Your task to perform on an android device: change keyboard looks Image 0: 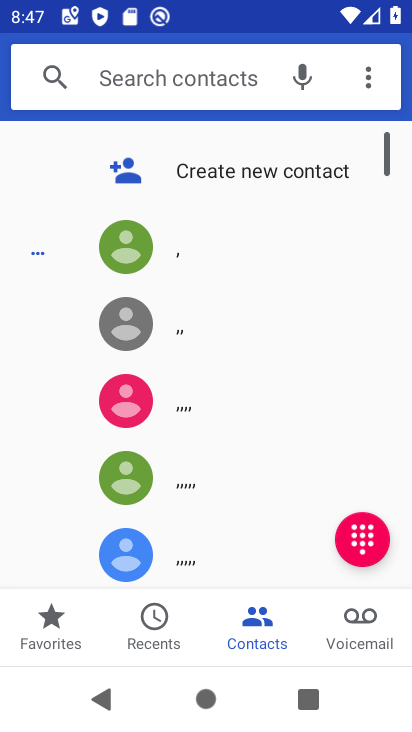
Step 0: press home button
Your task to perform on an android device: change keyboard looks Image 1: 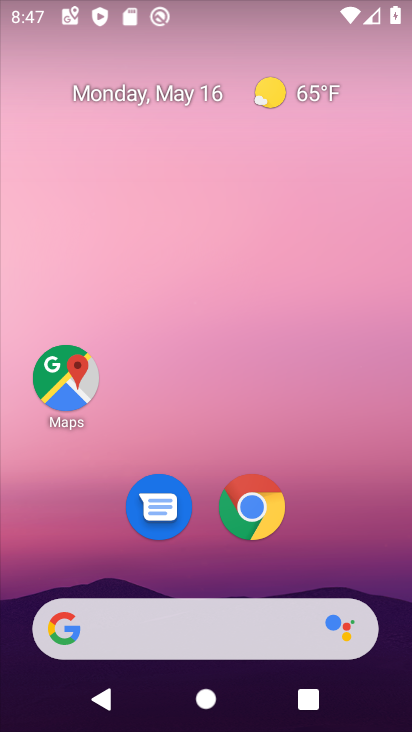
Step 1: drag from (219, 550) to (411, 56)
Your task to perform on an android device: change keyboard looks Image 2: 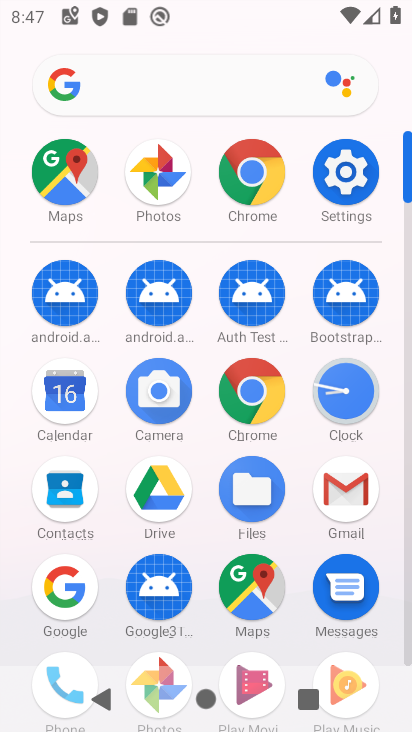
Step 2: click (345, 194)
Your task to perform on an android device: change keyboard looks Image 3: 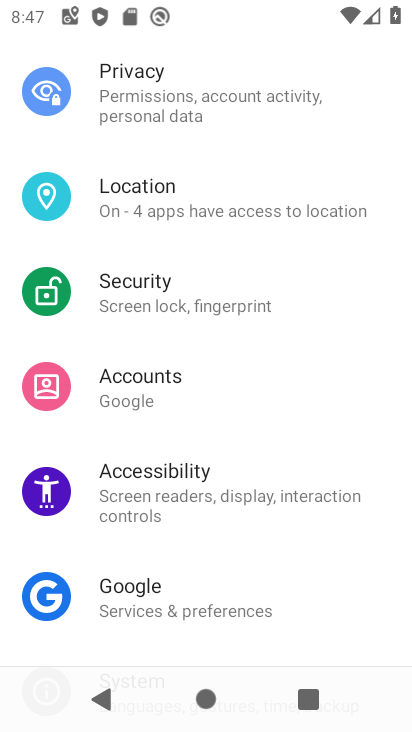
Step 3: drag from (145, 532) to (128, 240)
Your task to perform on an android device: change keyboard looks Image 4: 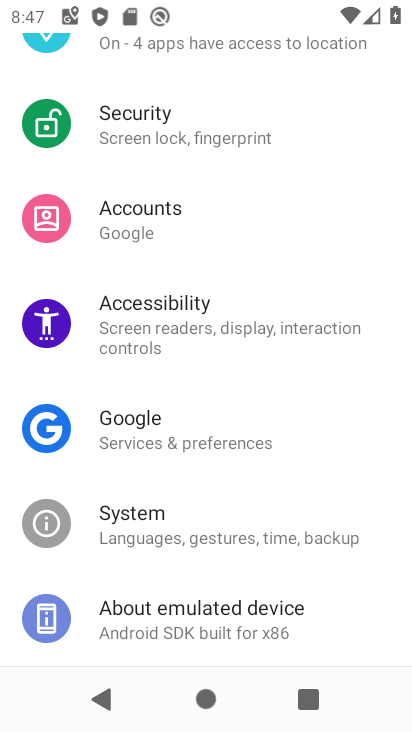
Step 4: click (120, 500)
Your task to perform on an android device: change keyboard looks Image 5: 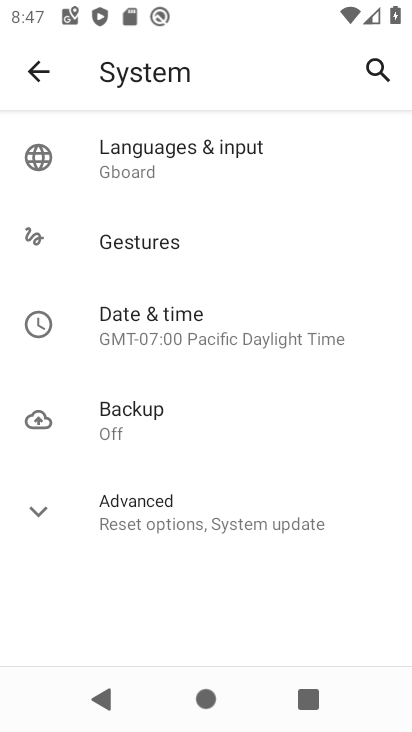
Step 5: click (135, 482)
Your task to perform on an android device: change keyboard looks Image 6: 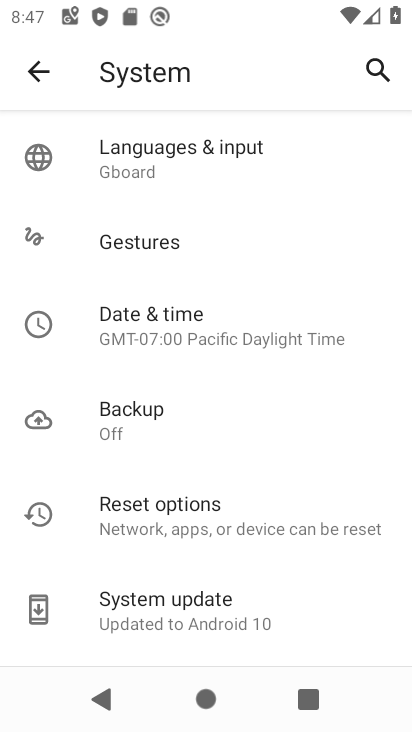
Step 6: click (205, 155)
Your task to perform on an android device: change keyboard looks Image 7: 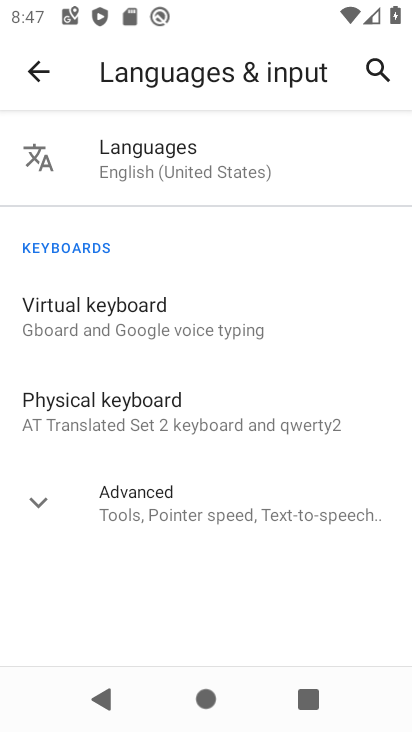
Step 7: click (160, 329)
Your task to perform on an android device: change keyboard looks Image 8: 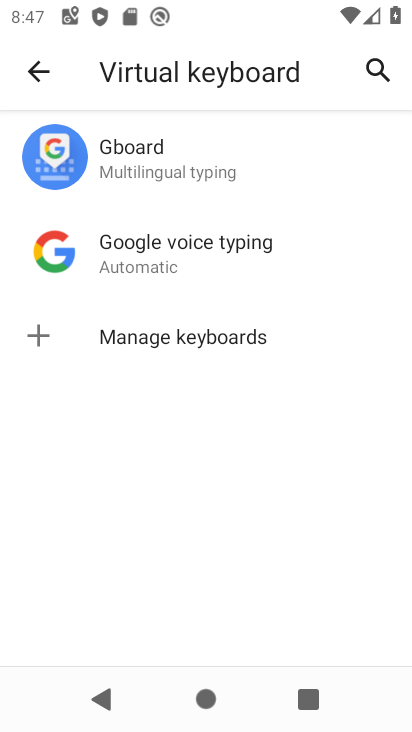
Step 8: click (126, 162)
Your task to perform on an android device: change keyboard looks Image 9: 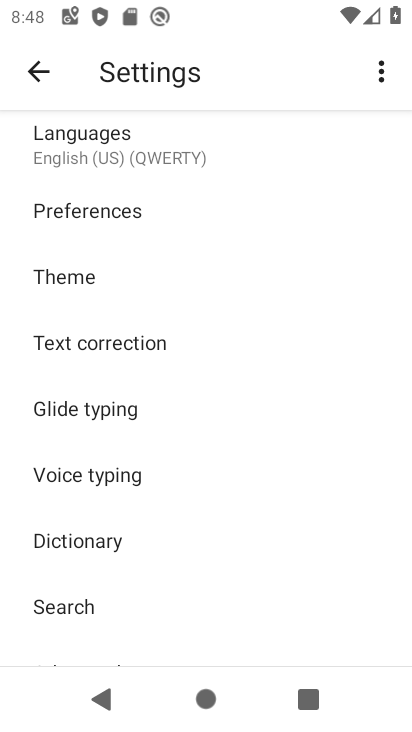
Step 9: click (91, 289)
Your task to perform on an android device: change keyboard looks Image 10: 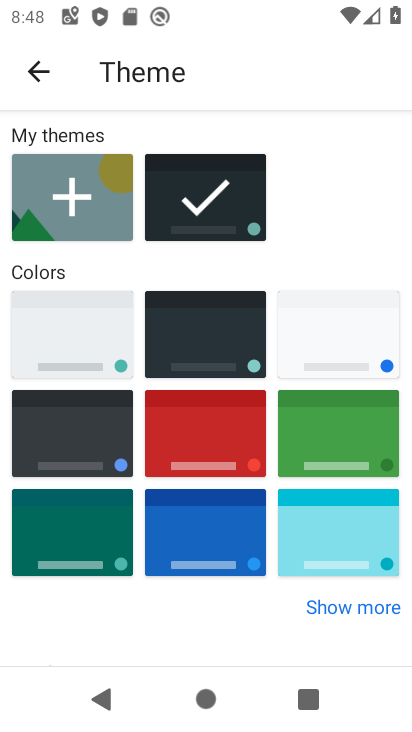
Step 10: click (80, 414)
Your task to perform on an android device: change keyboard looks Image 11: 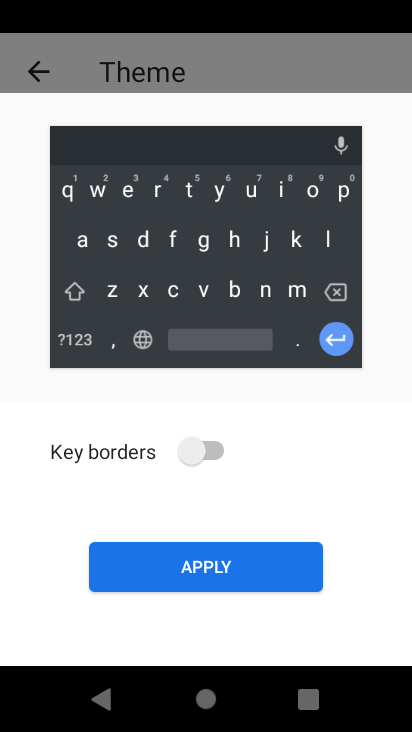
Step 11: click (232, 559)
Your task to perform on an android device: change keyboard looks Image 12: 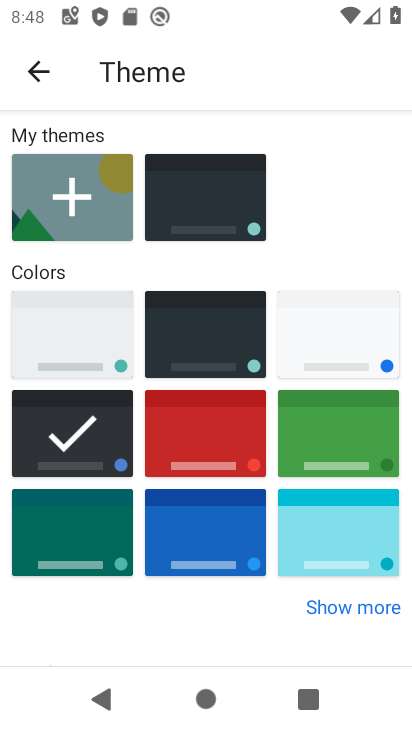
Step 12: task complete